Your task to perform on an android device: add a label to a message in the gmail app Image 0: 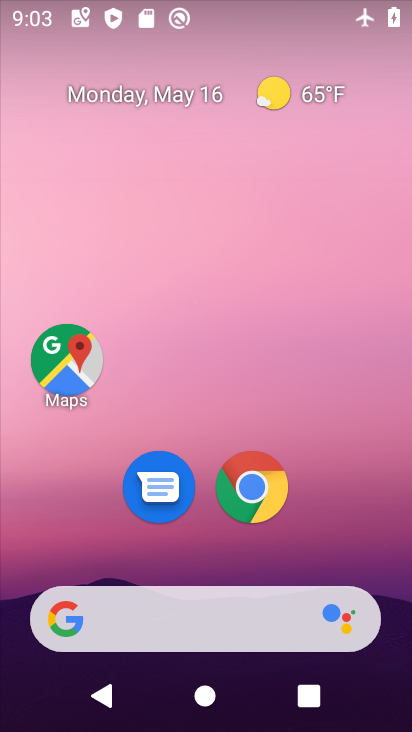
Step 0: drag from (371, 541) to (382, 65)
Your task to perform on an android device: add a label to a message in the gmail app Image 1: 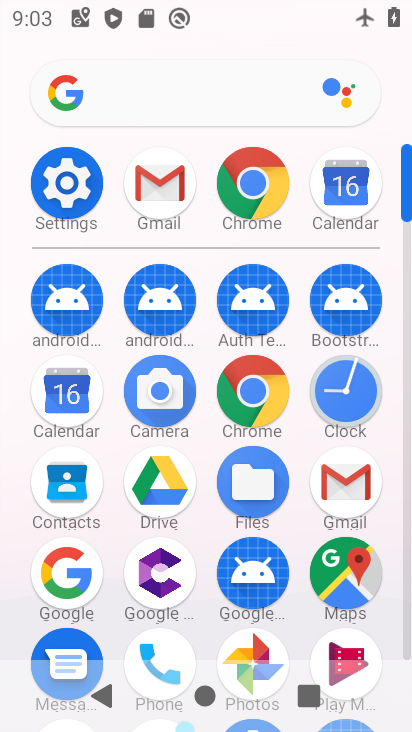
Step 1: click (363, 488)
Your task to perform on an android device: add a label to a message in the gmail app Image 2: 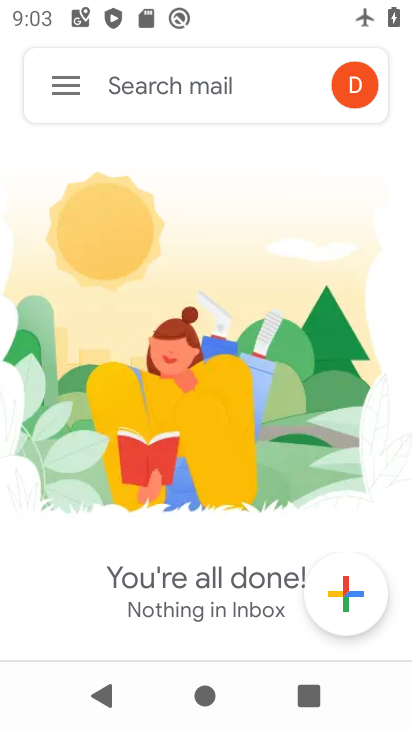
Step 2: click (54, 98)
Your task to perform on an android device: add a label to a message in the gmail app Image 3: 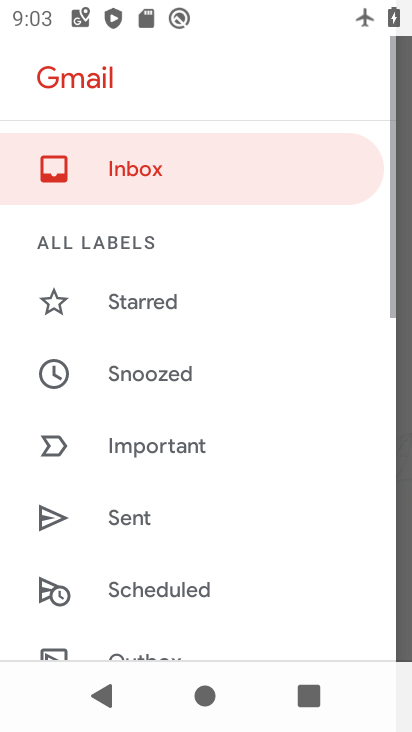
Step 3: drag from (250, 572) to (294, 372)
Your task to perform on an android device: add a label to a message in the gmail app Image 4: 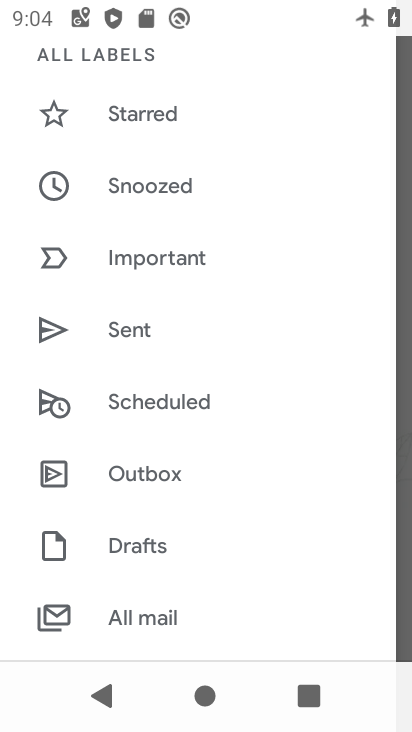
Step 4: drag from (282, 526) to (293, 332)
Your task to perform on an android device: add a label to a message in the gmail app Image 5: 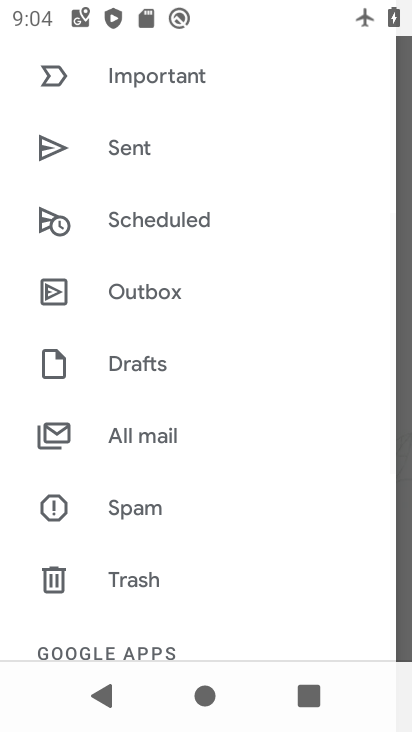
Step 5: drag from (278, 581) to (277, 400)
Your task to perform on an android device: add a label to a message in the gmail app Image 6: 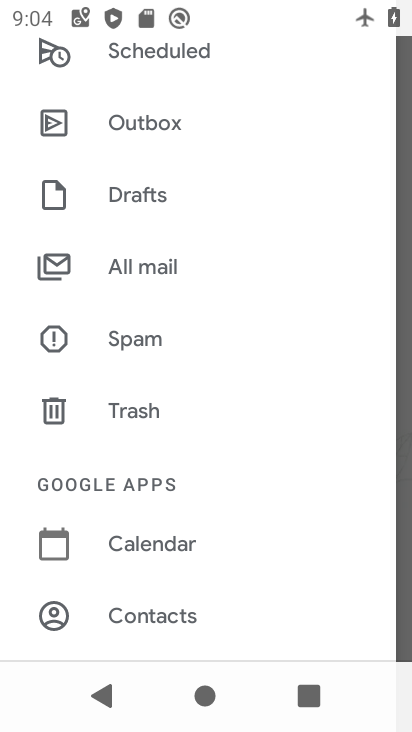
Step 6: drag from (280, 602) to (300, 420)
Your task to perform on an android device: add a label to a message in the gmail app Image 7: 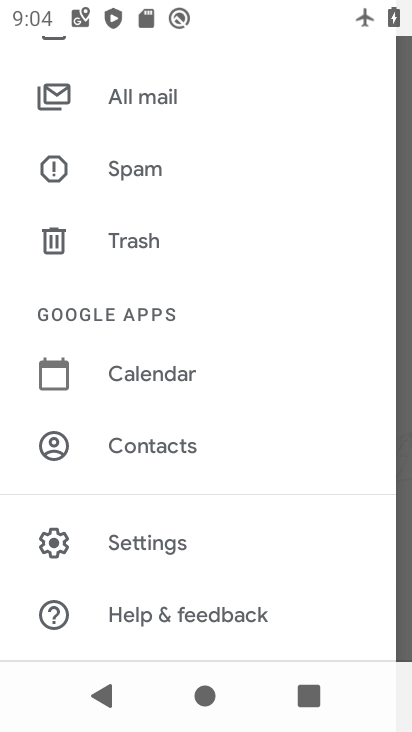
Step 7: drag from (309, 558) to (327, 317)
Your task to perform on an android device: add a label to a message in the gmail app Image 8: 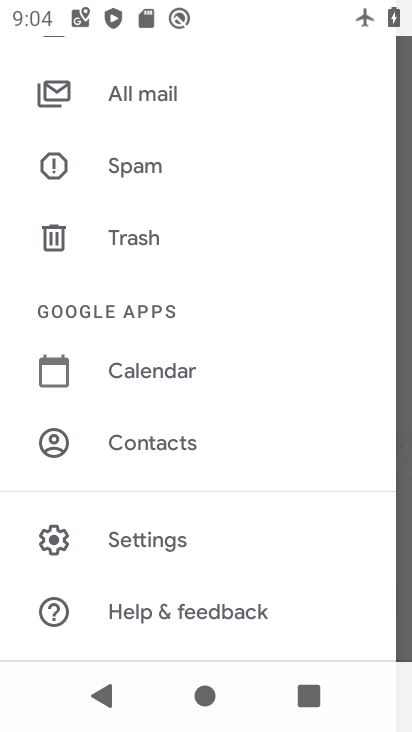
Step 8: drag from (312, 278) to (293, 488)
Your task to perform on an android device: add a label to a message in the gmail app Image 9: 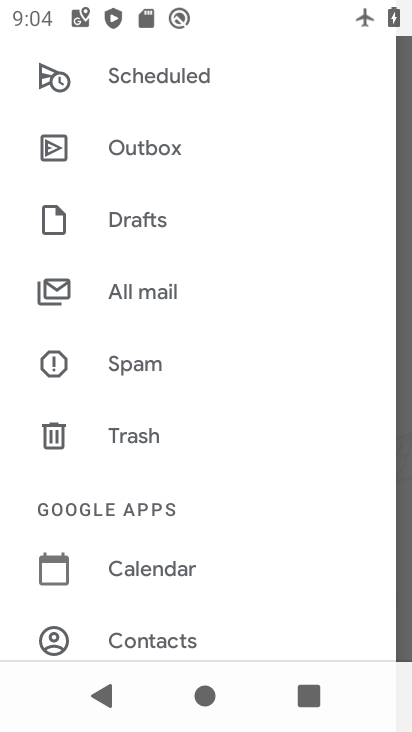
Step 9: drag from (288, 220) to (287, 437)
Your task to perform on an android device: add a label to a message in the gmail app Image 10: 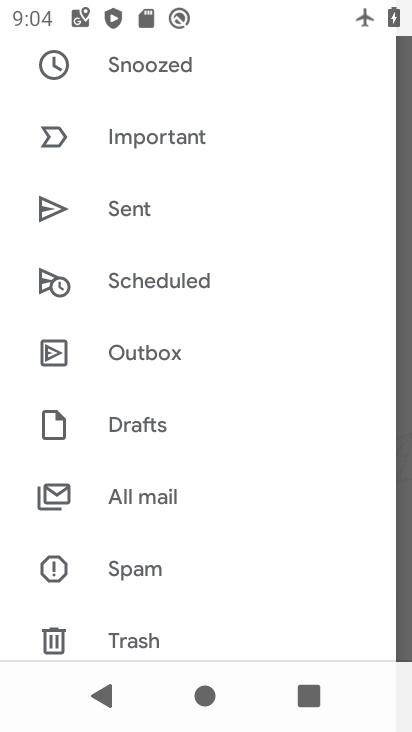
Step 10: drag from (269, 167) to (260, 447)
Your task to perform on an android device: add a label to a message in the gmail app Image 11: 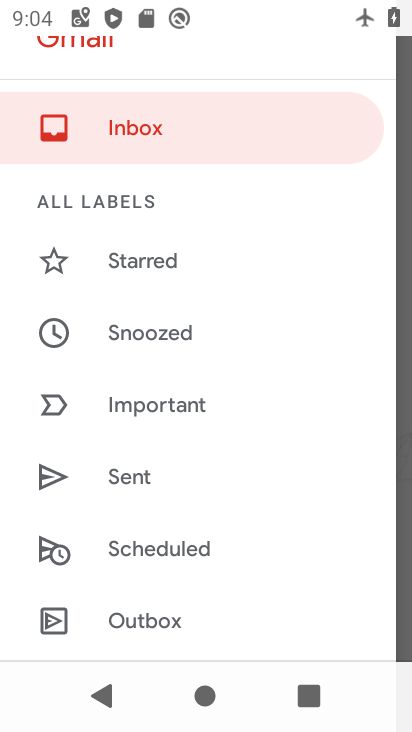
Step 11: drag from (291, 226) to (289, 486)
Your task to perform on an android device: add a label to a message in the gmail app Image 12: 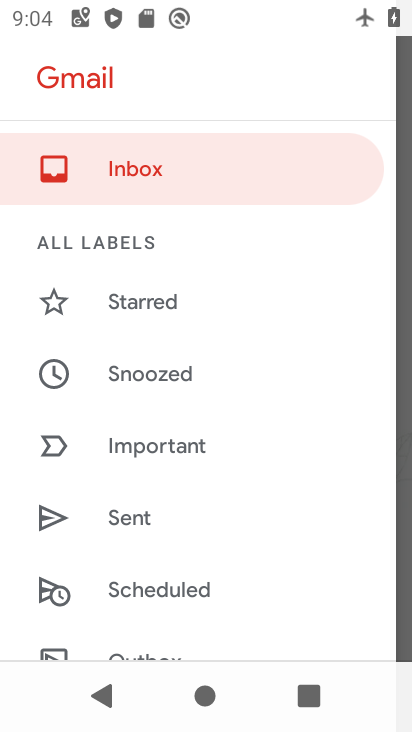
Step 12: click (186, 170)
Your task to perform on an android device: add a label to a message in the gmail app Image 13: 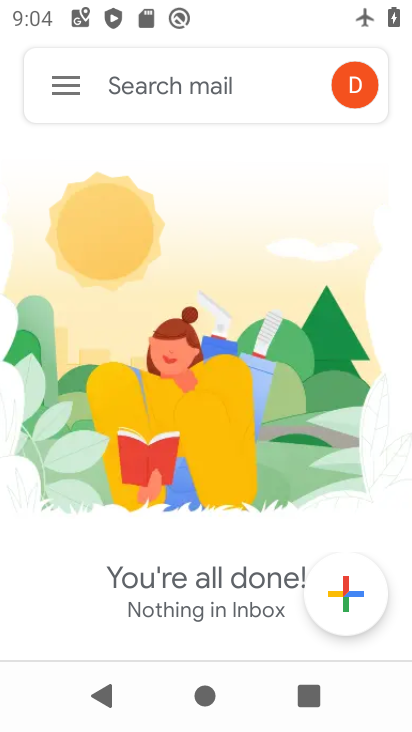
Step 13: task complete